Your task to perform on an android device: toggle translation in the chrome app Image 0: 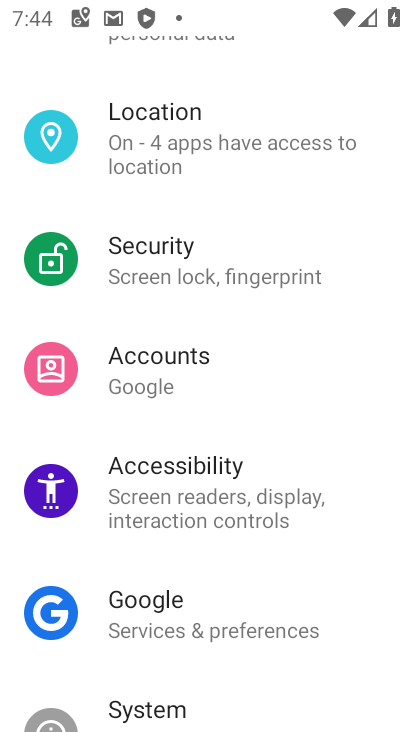
Step 0: press home button
Your task to perform on an android device: toggle translation in the chrome app Image 1: 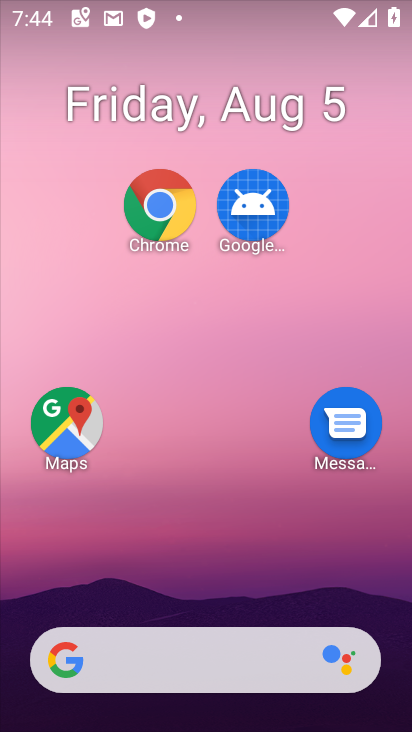
Step 1: click (159, 200)
Your task to perform on an android device: toggle translation in the chrome app Image 2: 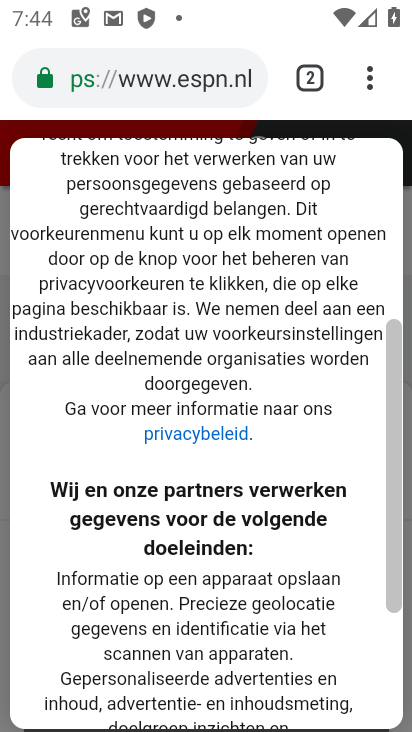
Step 2: click (368, 80)
Your task to perform on an android device: toggle translation in the chrome app Image 3: 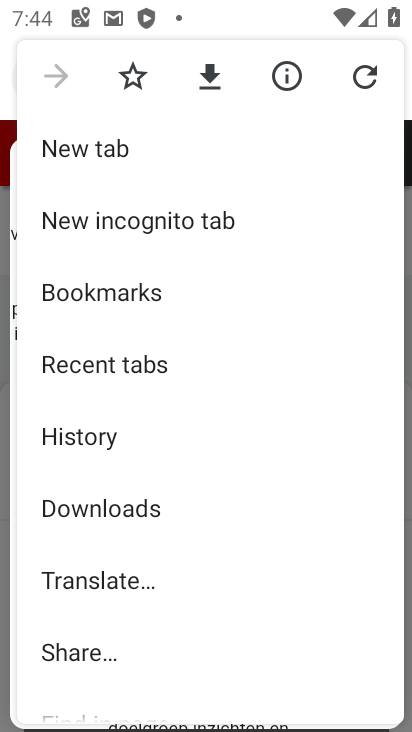
Step 3: drag from (243, 583) to (160, 245)
Your task to perform on an android device: toggle translation in the chrome app Image 4: 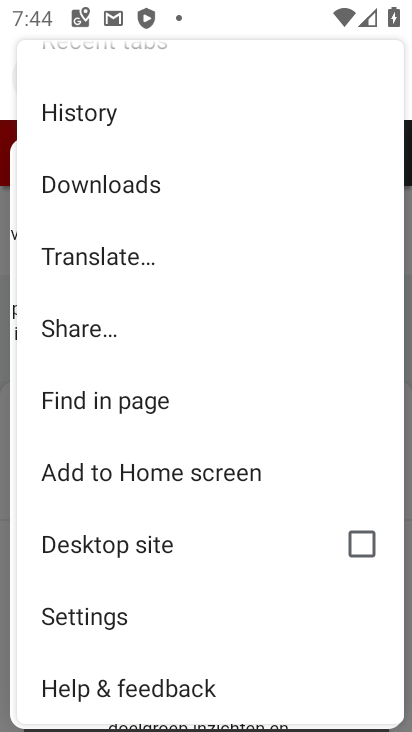
Step 4: click (76, 599)
Your task to perform on an android device: toggle translation in the chrome app Image 5: 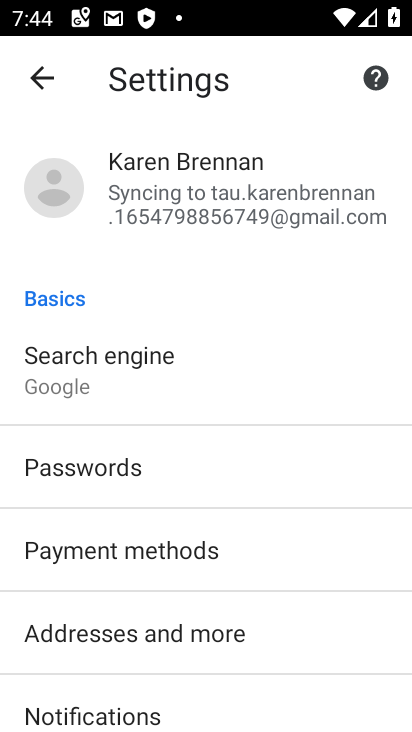
Step 5: drag from (76, 599) to (42, 319)
Your task to perform on an android device: toggle translation in the chrome app Image 6: 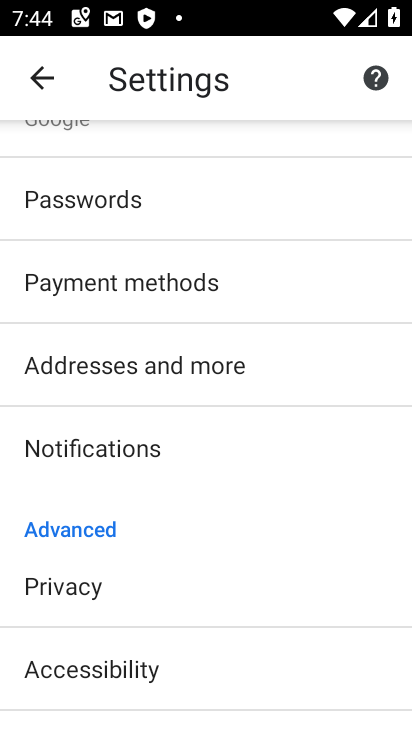
Step 6: drag from (145, 542) to (85, 217)
Your task to perform on an android device: toggle translation in the chrome app Image 7: 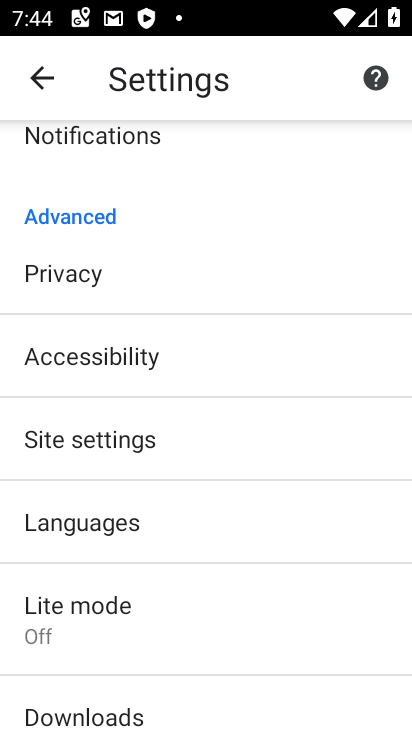
Step 7: click (150, 514)
Your task to perform on an android device: toggle translation in the chrome app Image 8: 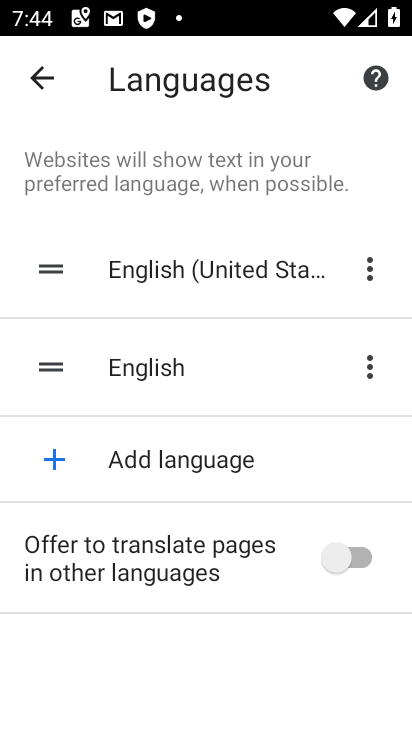
Step 8: click (362, 547)
Your task to perform on an android device: toggle translation in the chrome app Image 9: 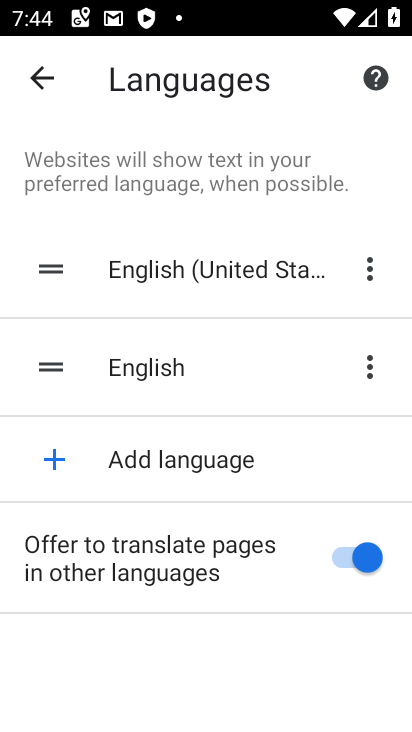
Step 9: task complete